Your task to perform on an android device: change the clock display to analog Image 0: 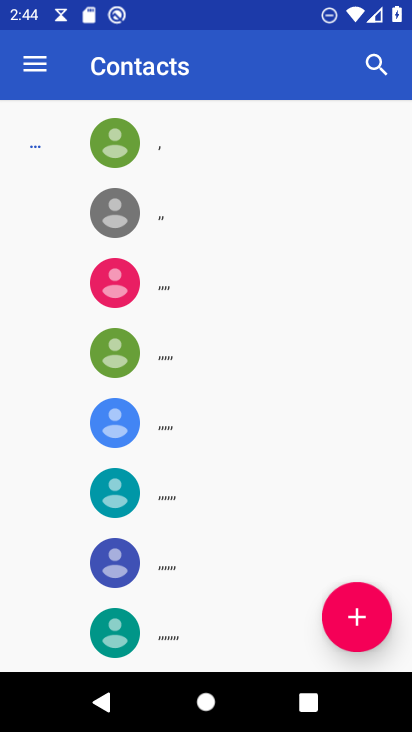
Step 0: press home button
Your task to perform on an android device: change the clock display to analog Image 1: 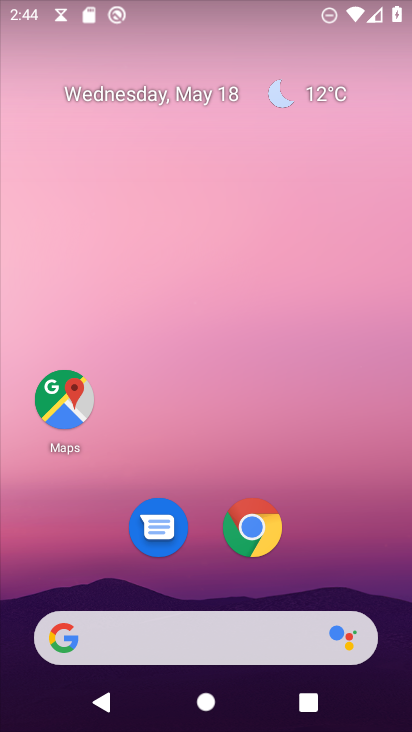
Step 1: drag from (326, 375) to (242, 24)
Your task to perform on an android device: change the clock display to analog Image 2: 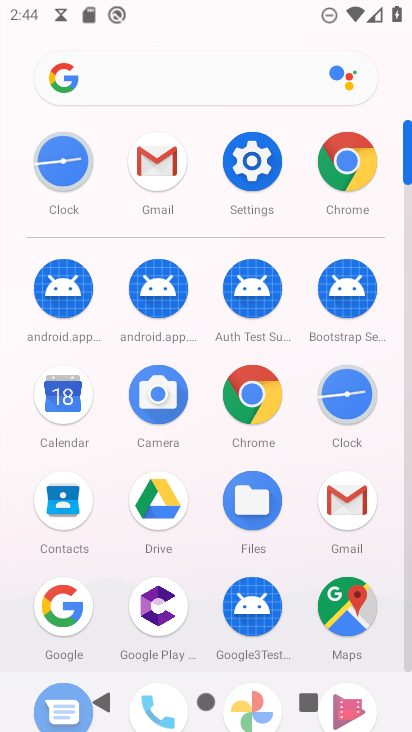
Step 2: click (71, 165)
Your task to perform on an android device: change the clock display to analog Image 3: 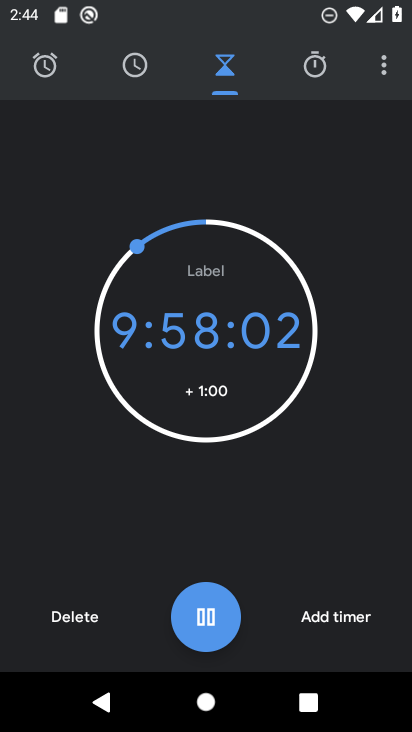
Step 3: click (380, 63)
Your task to perform on an android device: change the clock display to analog Image 4: 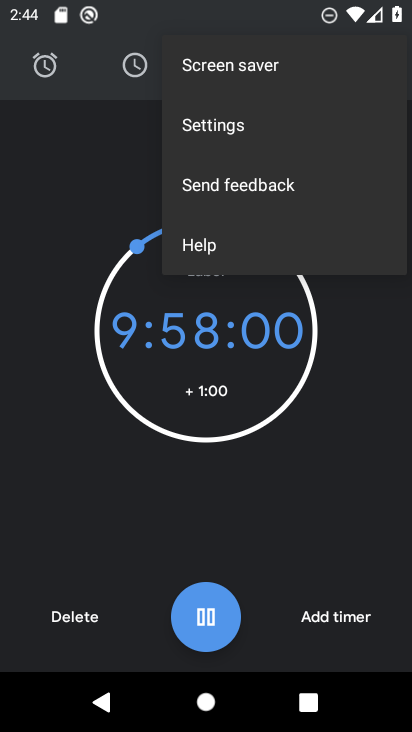
Step 4: click (209, 121)
Your task to perform on an android device: change the clock display to analog Image 5: 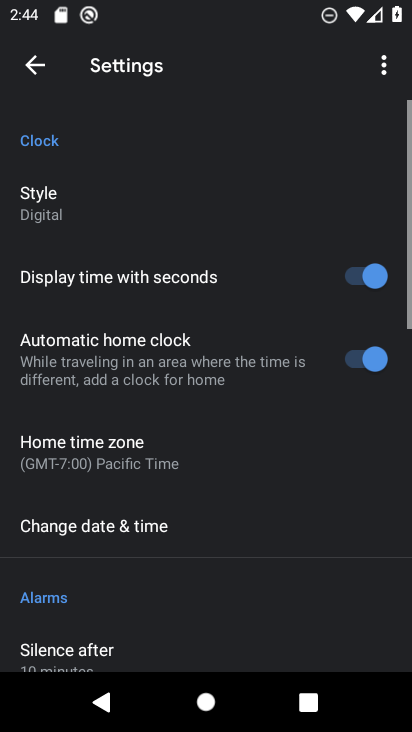
Step 5: click (94, 211)
Your task to perform on an android device: change the clock display to analog Image 6: 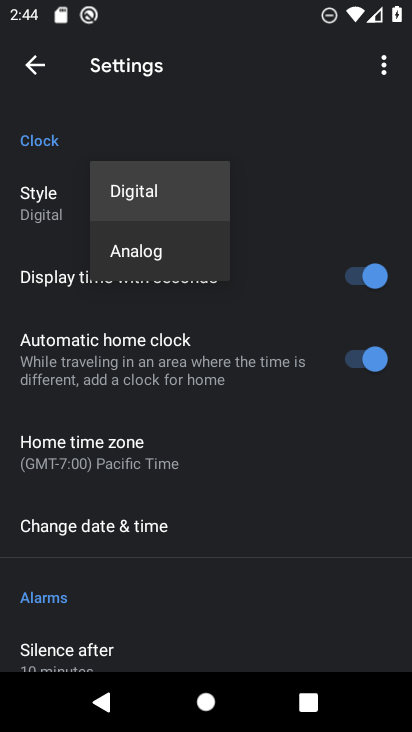
Step 6: click (169, 241)
Your task to perform on an android device: change the clock display to analog Image 7: 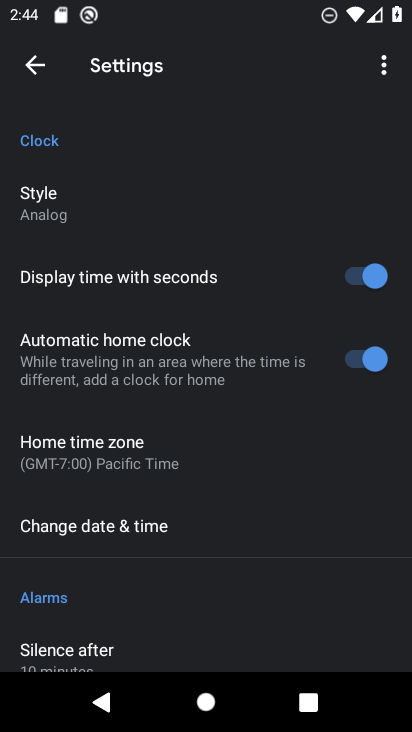
Step 7: task complete